Your task to perform on an android device: turn pop-ups off in chrome Image 0: 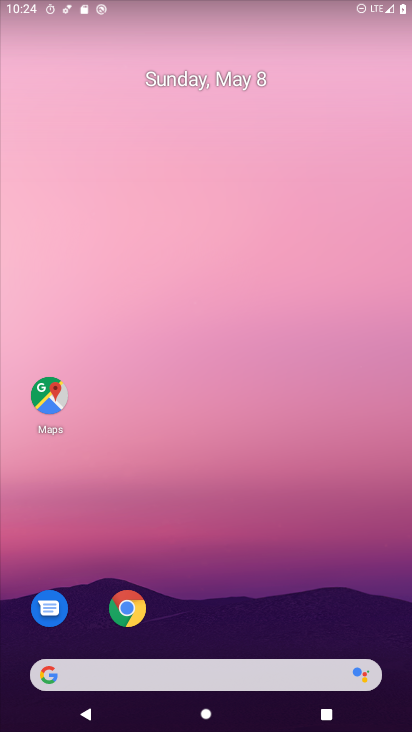
Step 0: click (125, 606)
Your task to perform on an android device: turn pop-ups off in chrome Image 1: 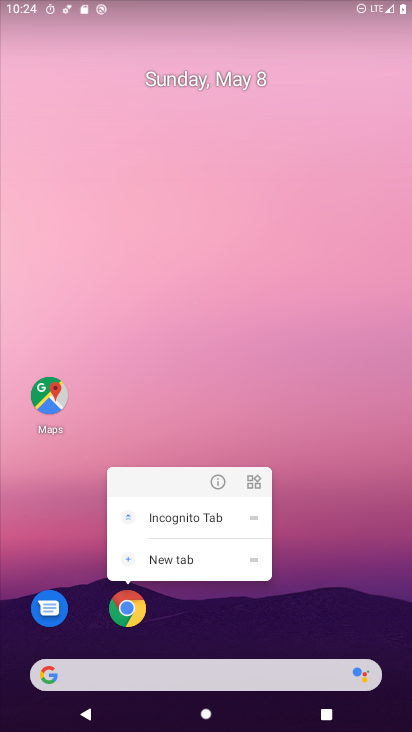
Step 1: click (212, 489)
Your task to perform on an android device: turn pop-ups off in chrome Image 2: 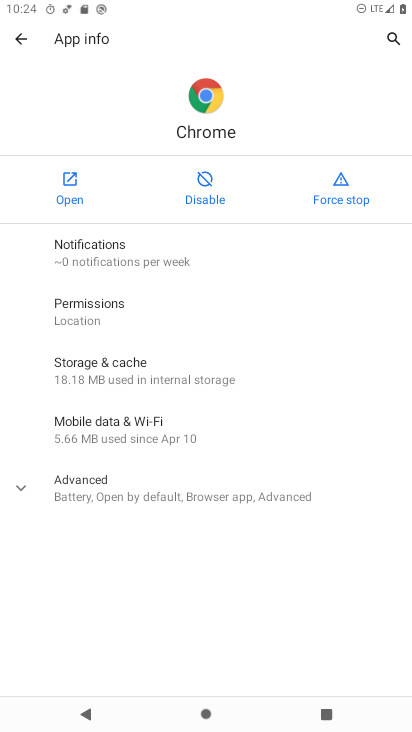
Step 2: click (77, 195)
Your task to perform on an android device: turn pop-ups off in chrome Image 3: 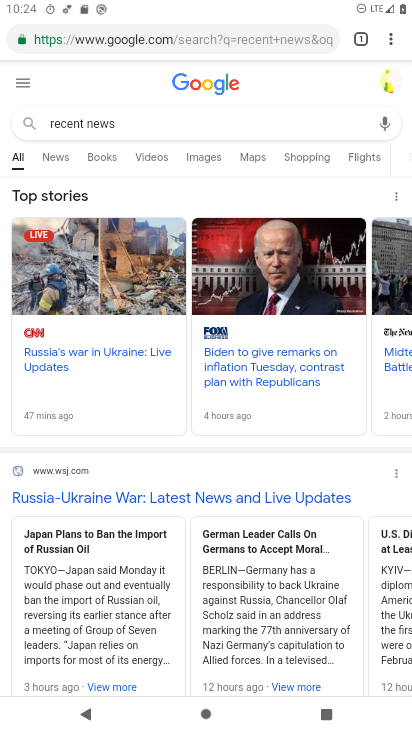
Step 3: click (388, 44)
Your task to perform on an android device: turn pop-ups off in chrome Image 4: 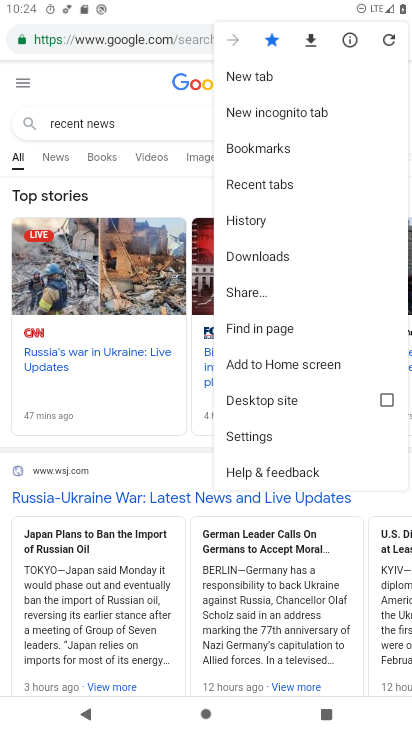
Step 4: click (252, 427)
Your task to perform on an android device: turn pop-ups off in chrome Image 5: 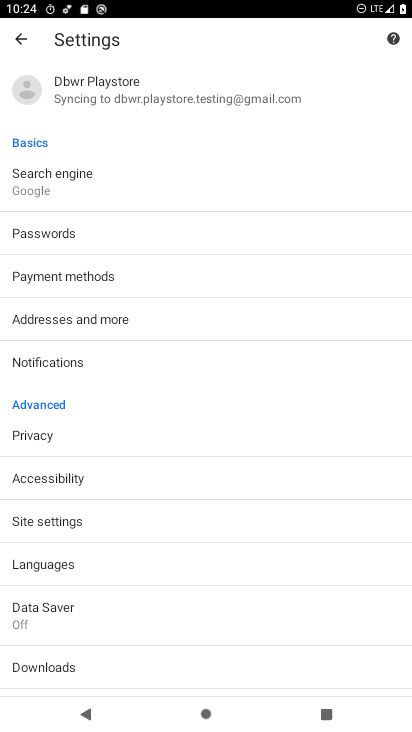
Step 5: click (80, 532)
Your task to perform on an android device: turn pop-ups off in chrome Image 6: 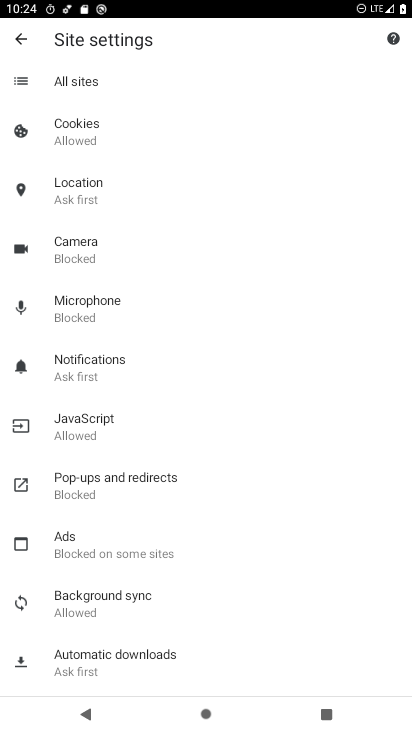
Step 6: click (100, 484)
Your task to perform on an android device: turn pop-ups off in chrome Image 7: 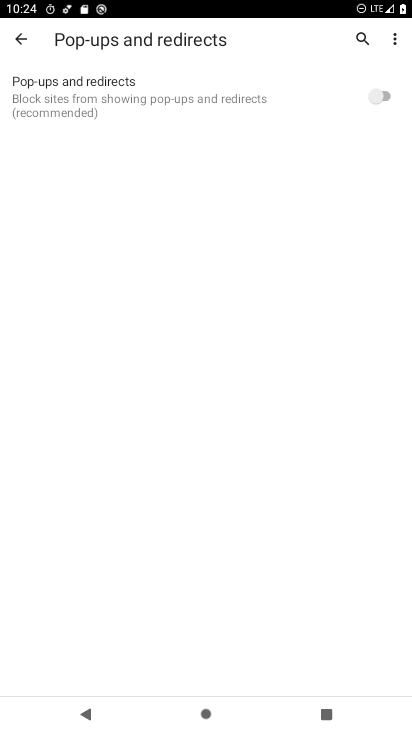
Step 7: task complete